Your task to perform on an android device: What is the news today? Image 0: 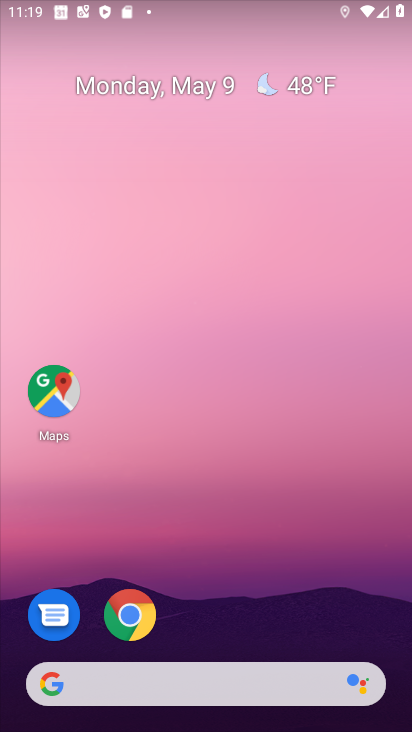
Step 0: drag from (249, 578) to (253, 138)
Your task to perform on an android device: What is the news today? Image 1: 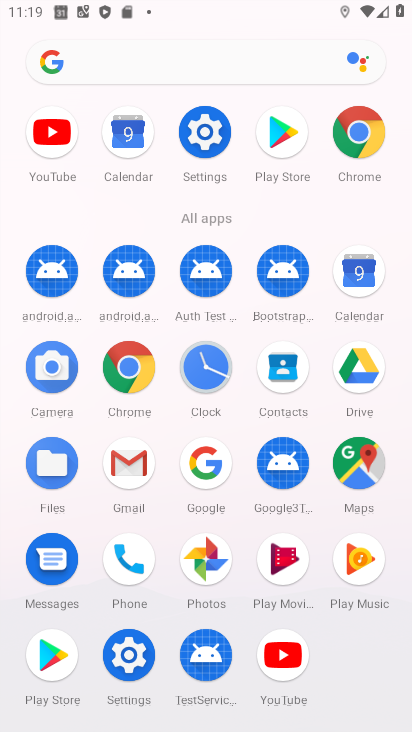
Step 1: click (196, 464)
Your task to perform on an android device: What is the news today? Image 2: 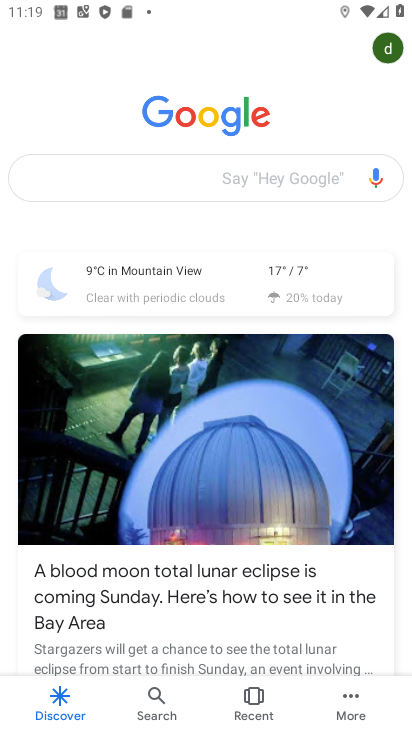
Step 2: click (152, 177)
Your task to perform on an android device: What is the news today? Image 3: 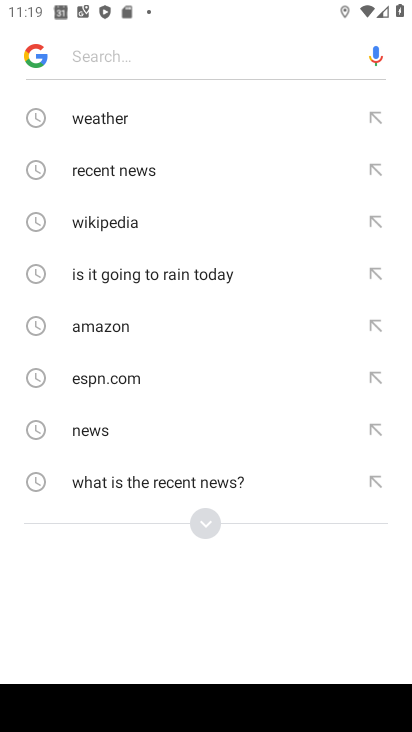
Step 3: click (117, 434)
Your task to perform on an android device: What is the news today? Image 4: 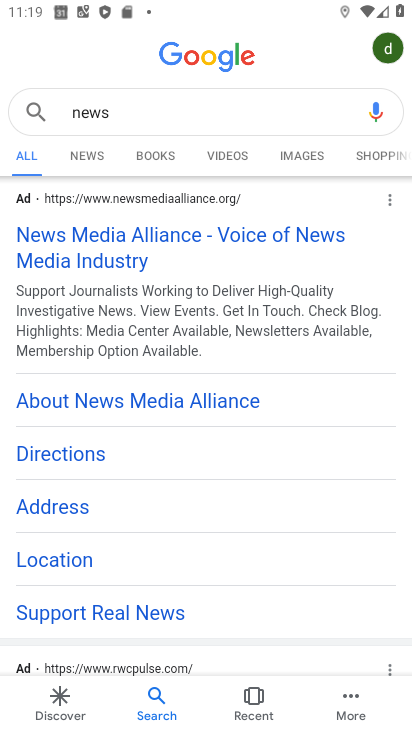
Step 4: click (91, 153)
Your task to perform on an android device: What is the news today? Image 5: 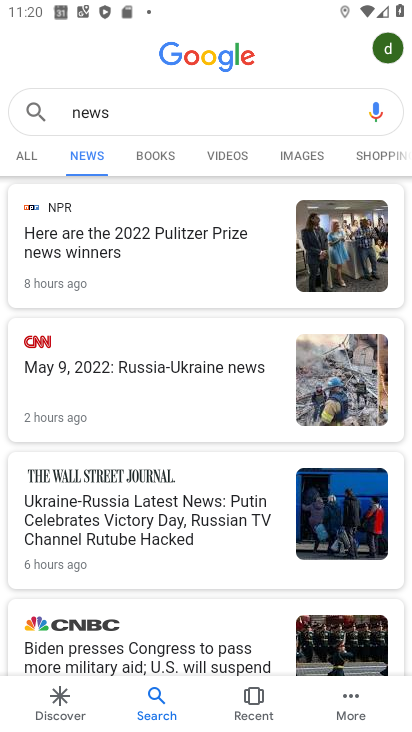
Step 5: task complete